Your task to perform on an android device: Open Google Chrome and click the shortcut for Amazon.com Image 0: 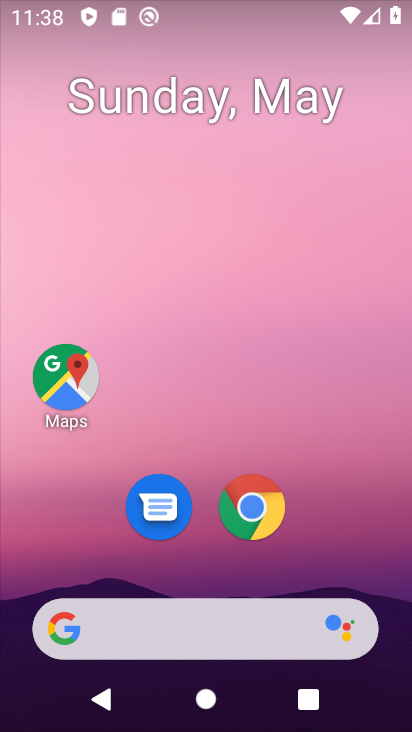
Step 0: click (253, 511)
Your task to perform on an android device: Open Google Chrome and click the shortcut for Amazon.com Image 1: 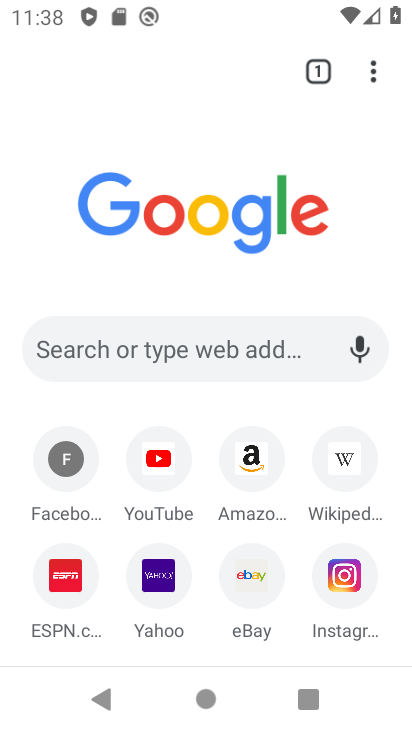
Step 1: click (245, 456)
Your task to perform on an android device: Open Google Chrome and click the shortcut for Amazon.com Image 2: 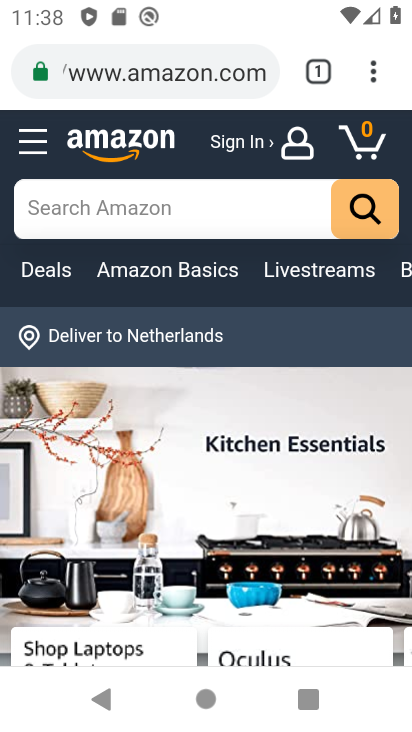
Step 2: task complete